Your task to perform on an android device: toggle priority inbox in the gmail app Image 0: 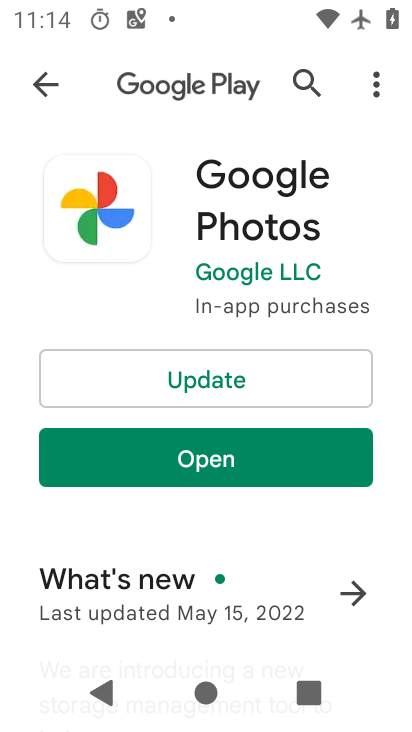
Step 0: press home button
Your task to perform on an android device: toggle priority inbox in the gmail app Image 1: 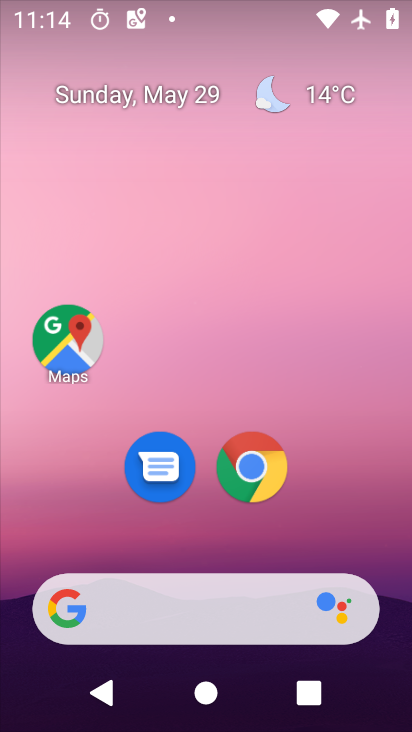
Step 1: drag from (201, 538) to (210, 176)
Your task to perform on an android device: toggle priority inbox in the gmail app Image 2: 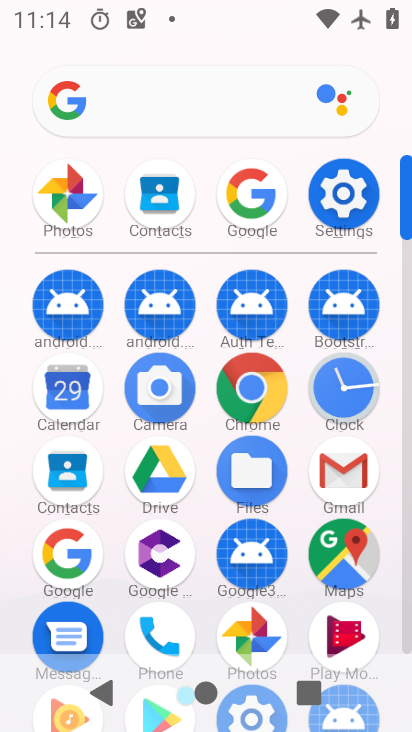
Step 2: click (330, 463)
Your task to perform on an android device: toggle priority inbox in the gmail app Image 3: 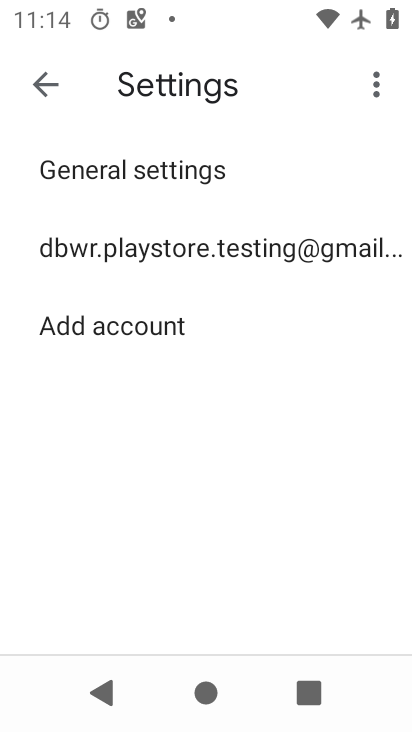
Step 3: click (28, 91)
Your task to perform on an android device: toggle priority inbox in the gmail app Image 4: 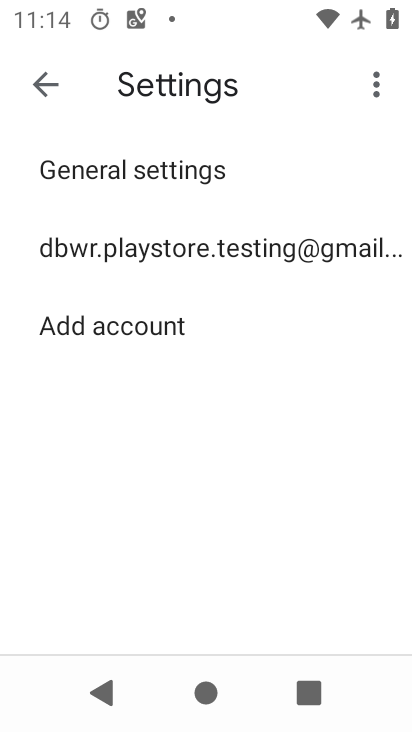
Step 4: click (49, 90)
Your task to perform on an android device: toggle priority inbox in the gmail app Image 5: 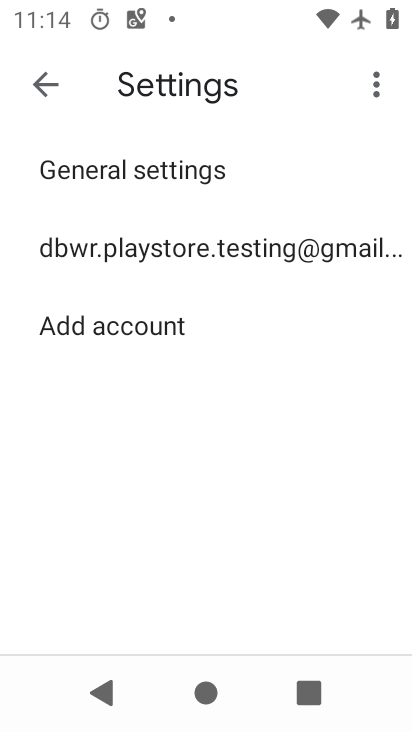
Step 5: click (137, 257)
Your task to perform on an android device: toggle priority inbox in the gmail app Image 6: 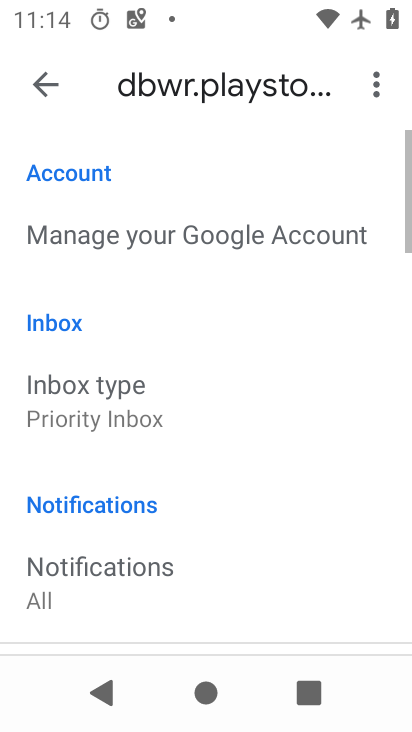
Step 6: drag from (217, 588) to (240, 439)
Your task to perform on an android device: toggle priority inbox in the gmail app Image 7: 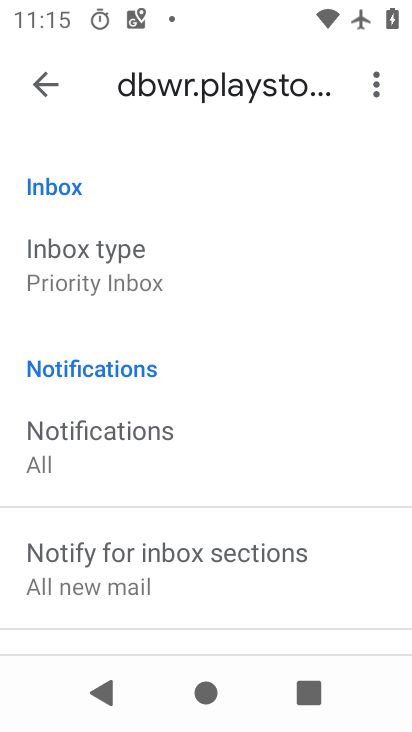
Step 7: click (162, 281)
Your task to perform on an android device: toggle priority inbox in the gmail app Image 8: 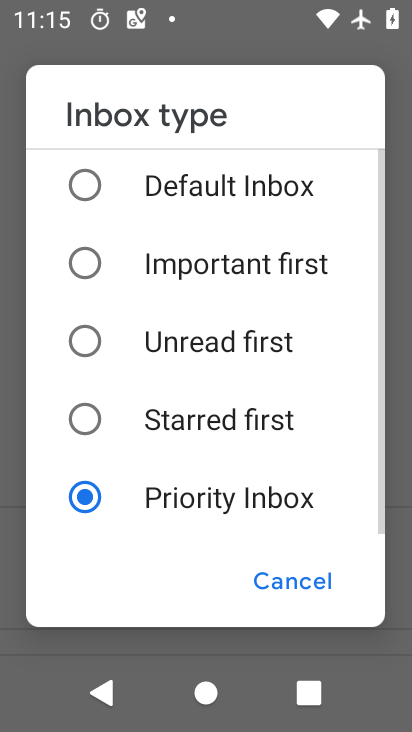
Step 8: click (174, 195)
Your task to perform on an android device: toggle priority inbox in the gmail app Image 9: 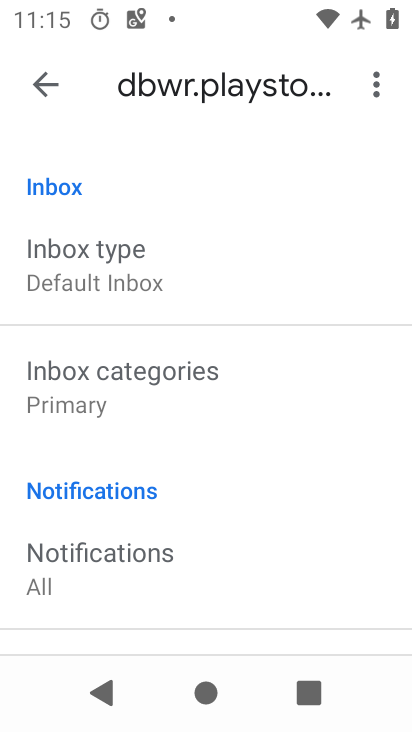
Step 9: task complete